Your task to perform on an android device: Open internet settings Image 0: 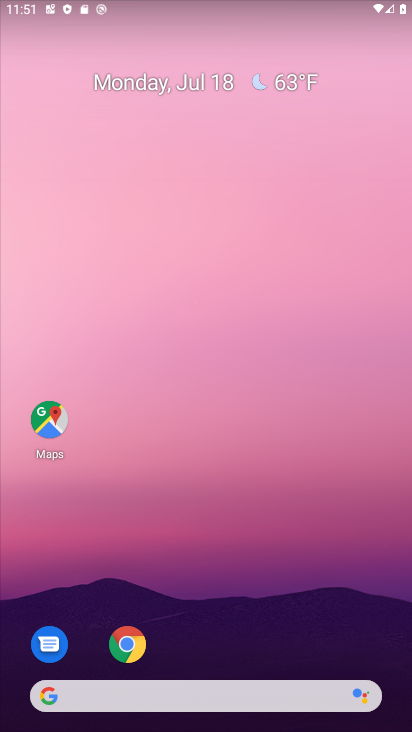
Step 0: drag from (234, 725) to (231, 237)
Your task to perform on an android device: Open internet settings Image 1: 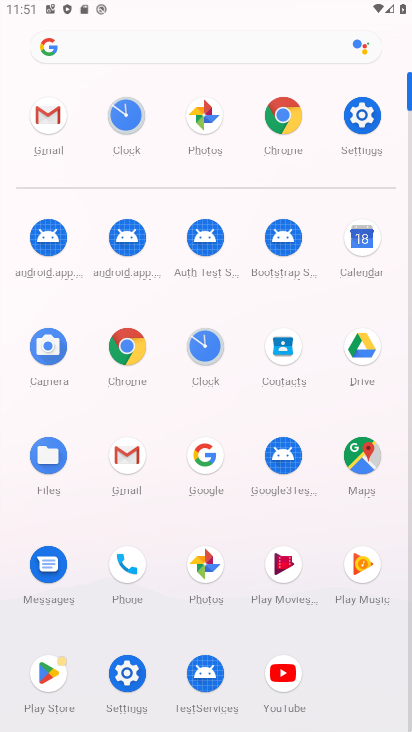
Step 1: click (360, 119)
Your task to perform on an android device: Open internet settings Image 2: 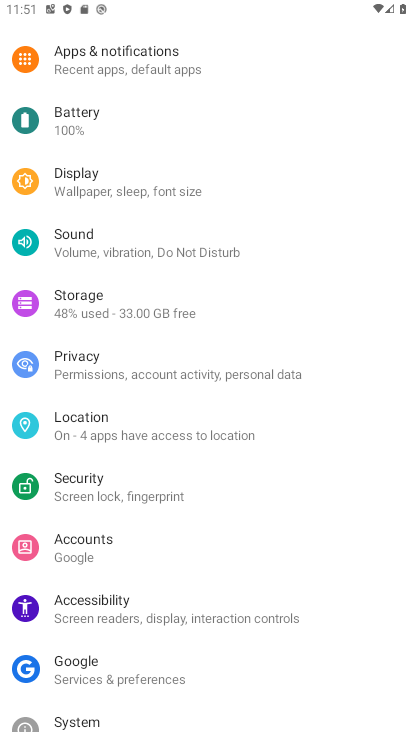
Step 2: drag from (117, 189) to (152, 537)
Your task to perform on an android device: Open internet settings Image 3: 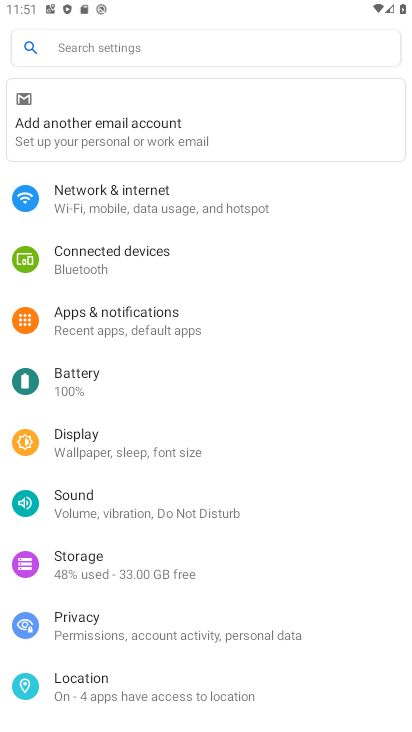
Step 3: click (86, 207)
Your task to perform on an android device: Open internet settings Image 4: 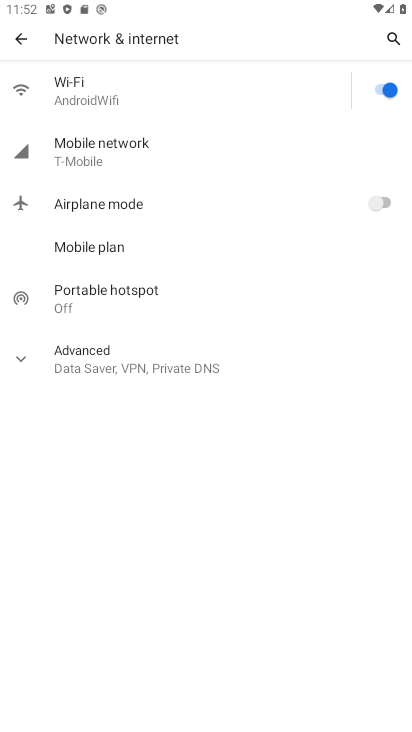
Step 4: task complete